Your task to perform on an android device: toggle airplane mode Image 0: 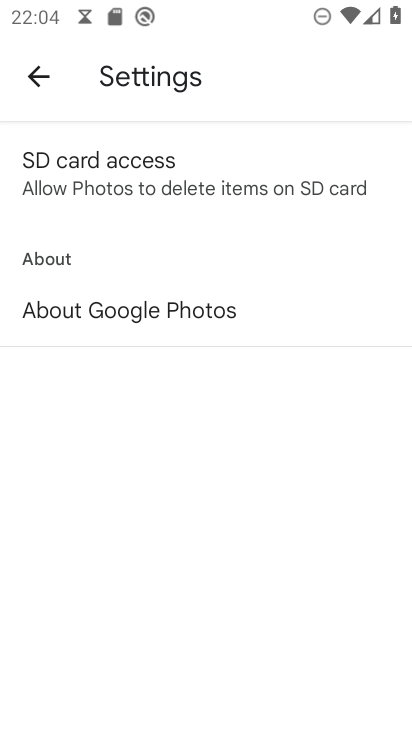
Step 0: press home button
Your task to perform on an android device: toggle airplane mode Image 1: 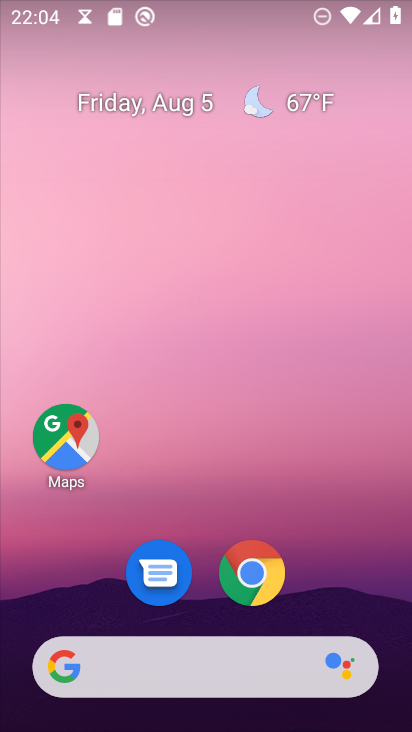
Step 1: drag from (196, 678) to (229, 166)
Your task to perform on an android device: toggle airplane mode Image 2: 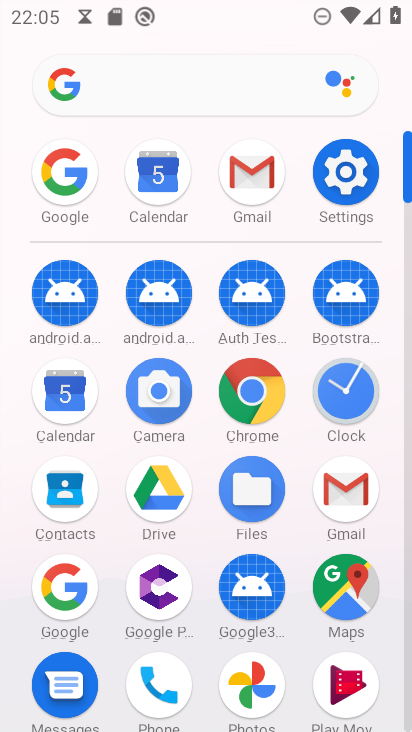
Step 2: click (346, 172)
Your task to perform on an android device: toggle airplane mode Image 3: 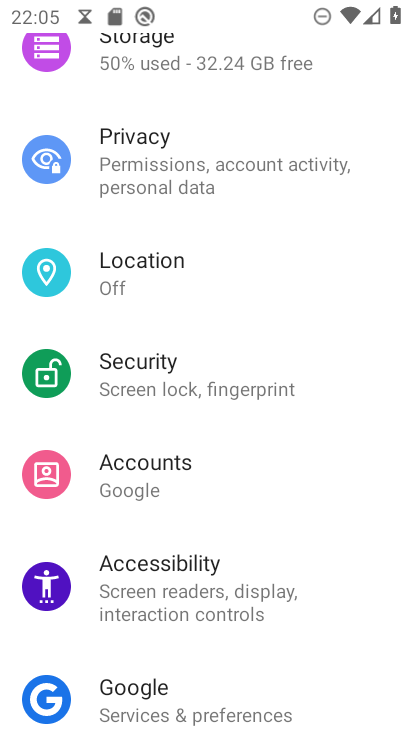
Step 3: drag from (221, 203) to (265, 541)
Your task to perform on an android device: toggle airplane mode Image 4: 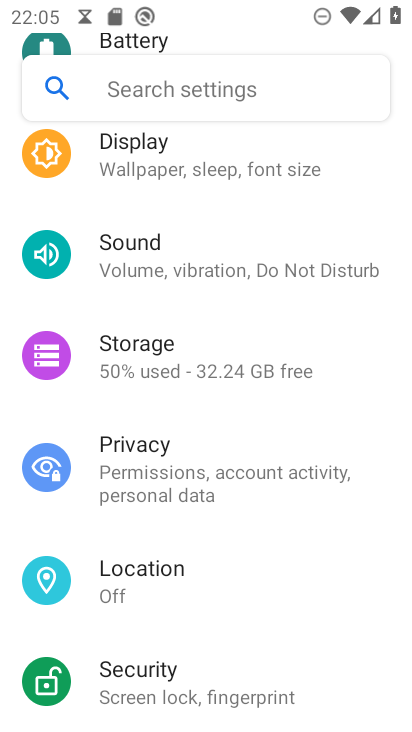
Step 4: drag from (250, 218) to (273, 550)
Your task to perform on an android device: toggle airplane mode Image 5: 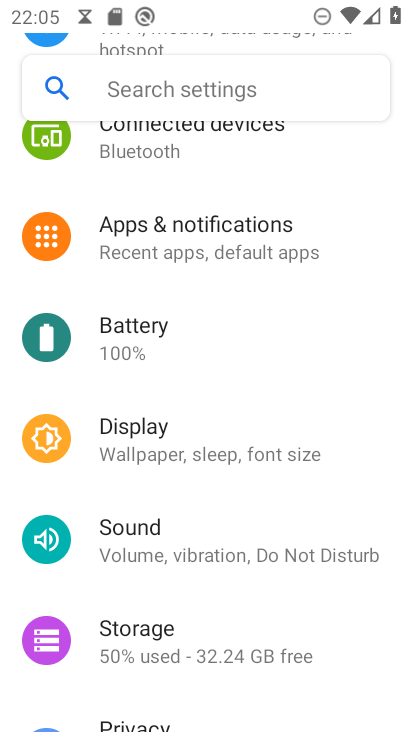
Step 5: drag from (237, 221) to (320, 459)
Your task to perform on an android device: toggle airplane mode Image 6: 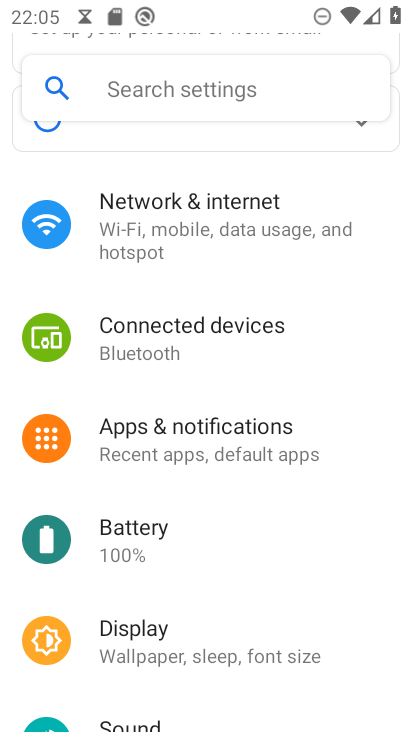
Step 6: drag from (248, 272) to (300, 449)
Your task to perform on an android device: toggle airplane mode Image 7: 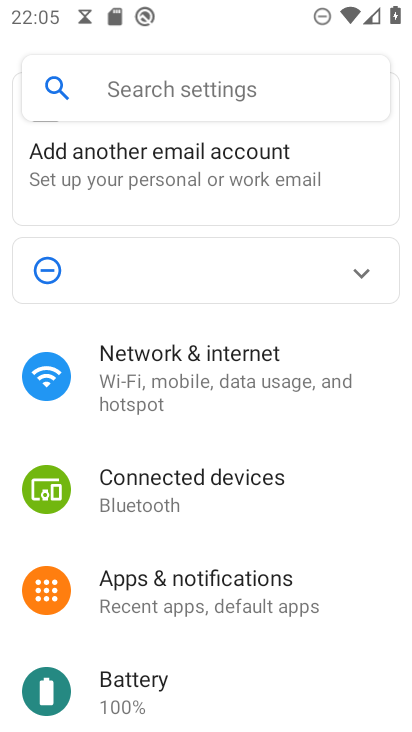
Step 7: click (194, 382)
Your task to perform on an android device: toggle airplane mode Image 8: 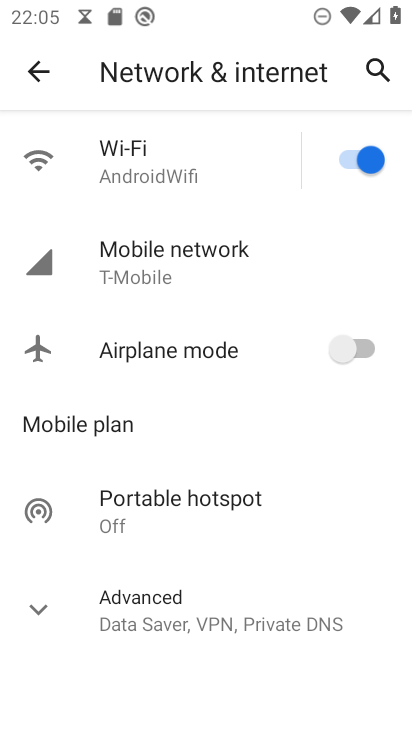
Step 8: click (347, 349)
Your task to perform on an android device: toggle airplane mode Image 9: 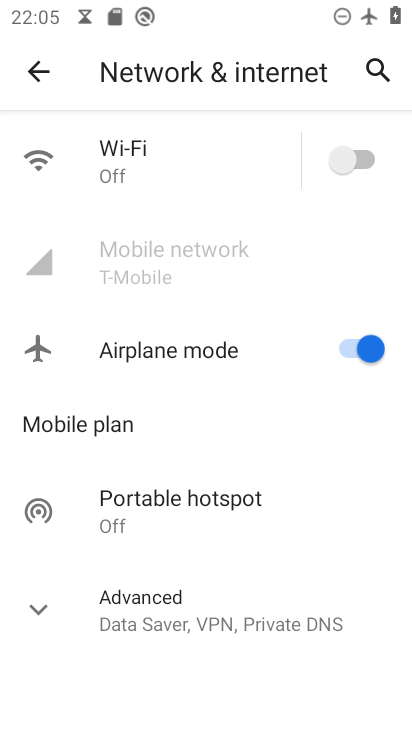
Step 9: task complete